Your task to perform on an android device: Open Wikipedia Image 0: 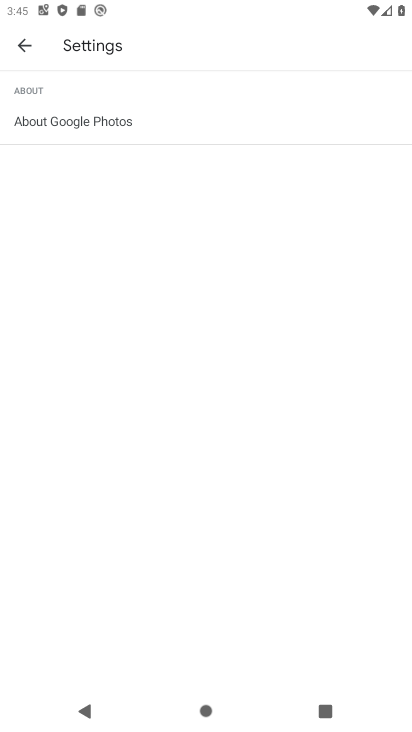
Step 0: press home button
Your task to perform on an android device: Open Wikipedia Image 1: 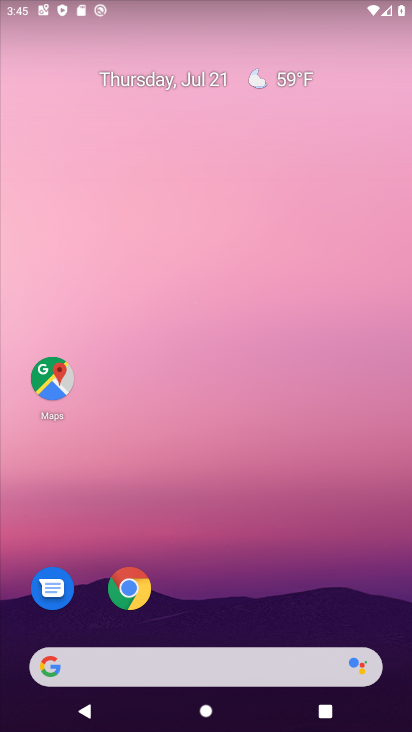
Step 1: click (132, 592)
Your task to perform on an android device: Open Wikipedia Image 2: 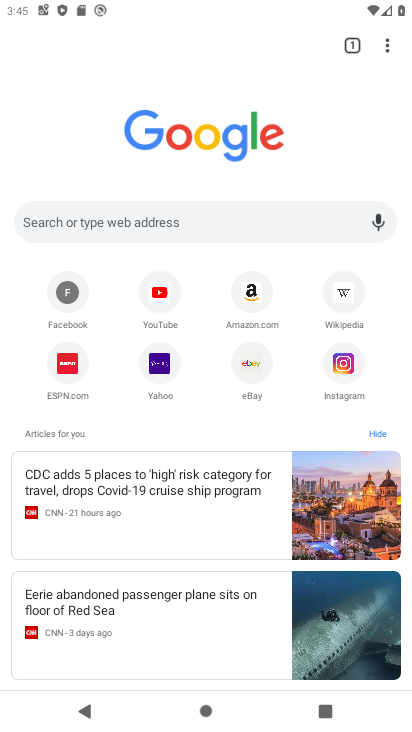
Step 2: click (340, 299)
Your task to perform on an android device: Open Wikipedia Image 3: 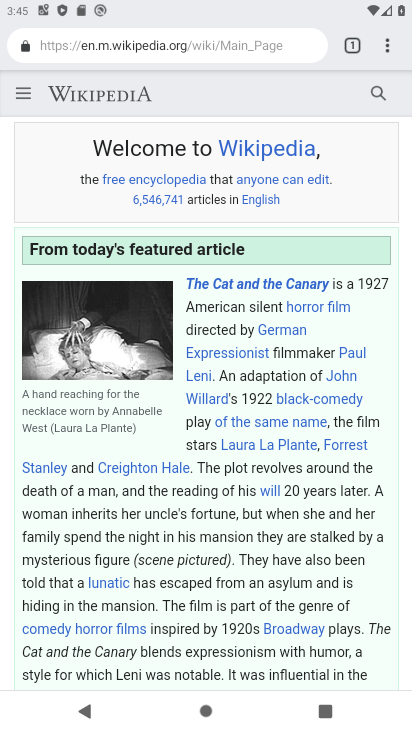
Step 3: task complete